Your task to perform on an android device: open wifi settings Image 0: 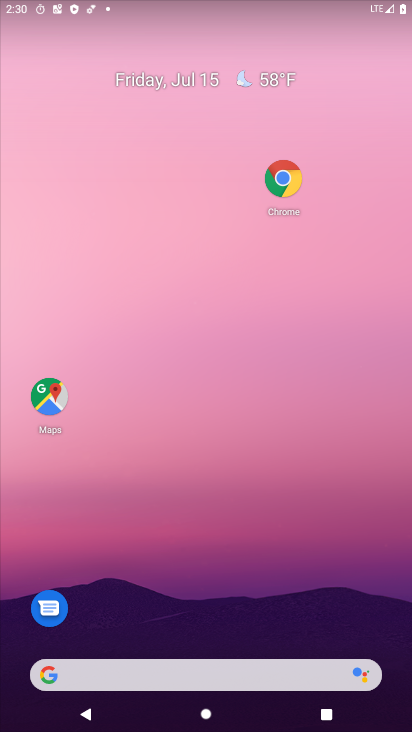
Step 0: drag from (249, 625) to (282, 69)
Your task to perform on an android device: open wifi settings Image 1: 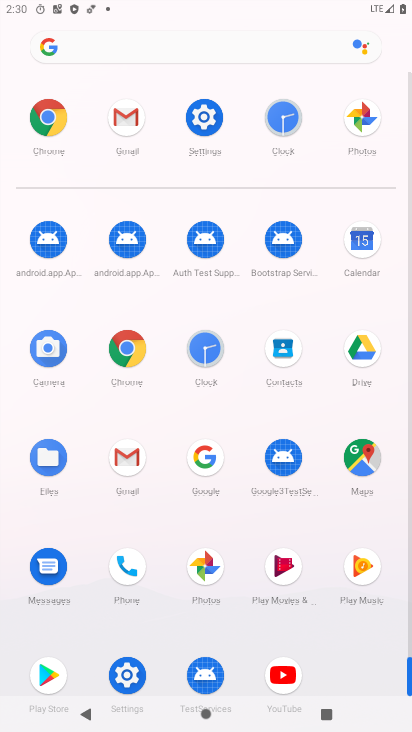
Step 1: drag from (145, 3) to (115, 527)
Your task to perform on an android device: open wifi settings Image 2: 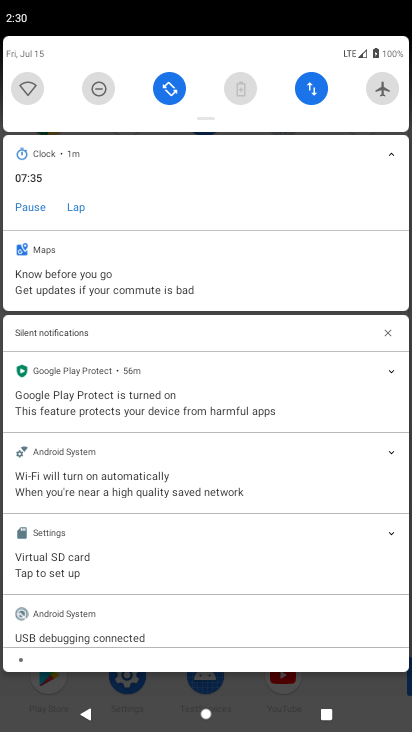
Step 2: click (39, 80)
Your task to perform on an android device: open wifi settings Image 3: 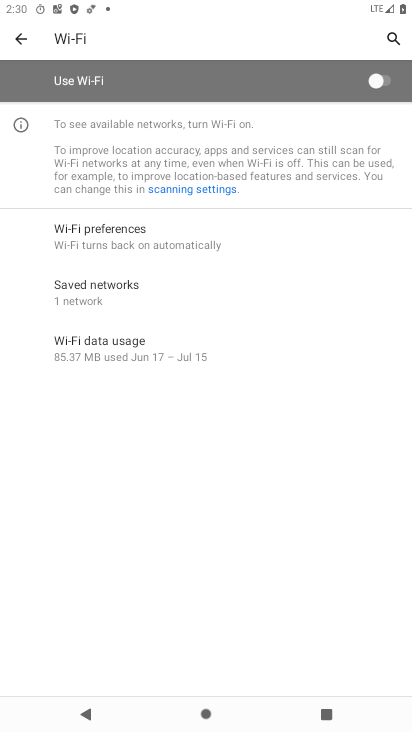
Step 3: task complete